Your task to perform on an android device: move a message to another label in the gmail app Image 0: 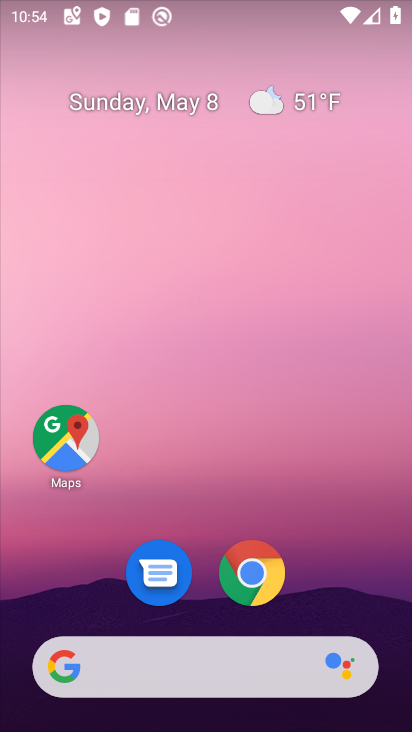
Step 0: drag from (197, 634) to (196, 85)
Your task to perform on an android device: move a message to another label in the gmail app Image 1: 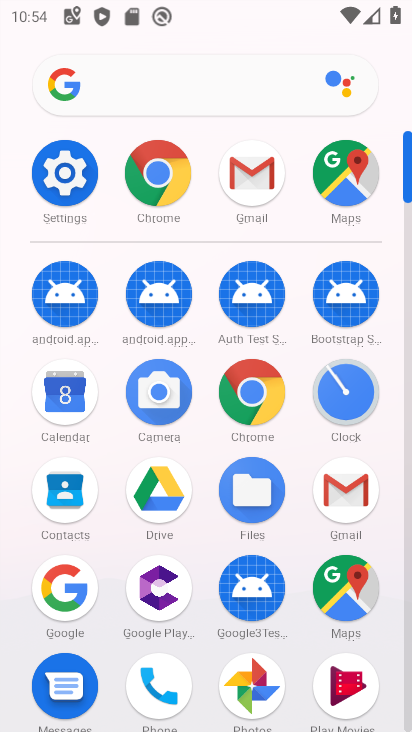
Step 1: click (250, 194)
Your task to perform on an android device: move a message to another label in the gmail app Image 2: 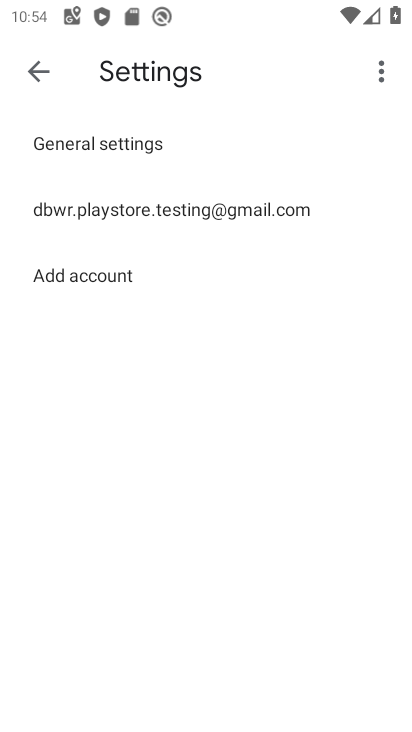
Step 2: click (29, 71)
Your task to perform on an android device: move a message to another label in the gmail app Image 3: 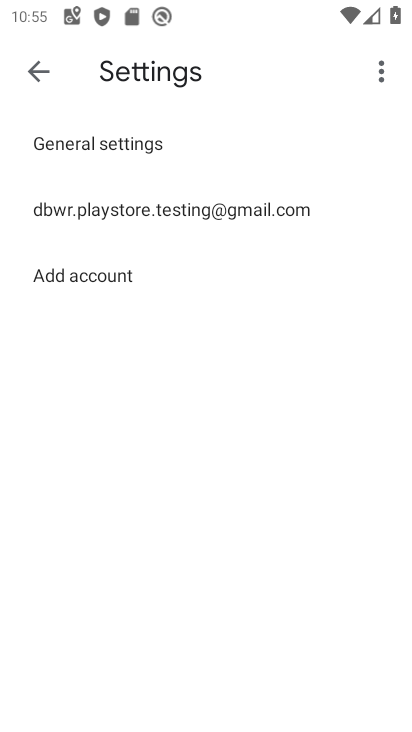
Step 3: click (32, 75)
Your task to perform on an android device: move a message to another label in the gmail app Image 4: 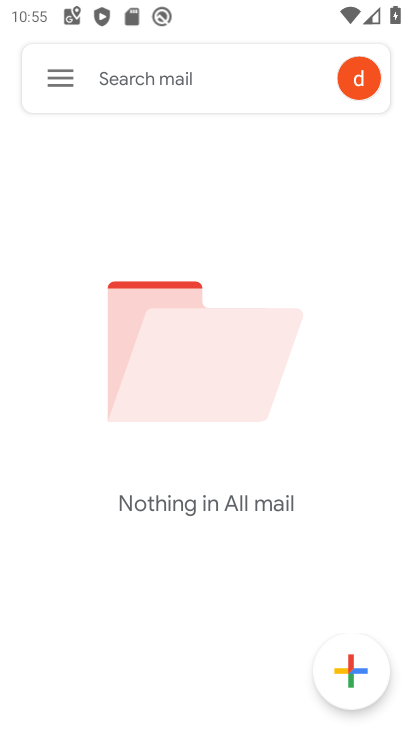
Step 4: click (57, 80)
Your task to perform on an android device: move a message to another label in the gmail app Image 5: 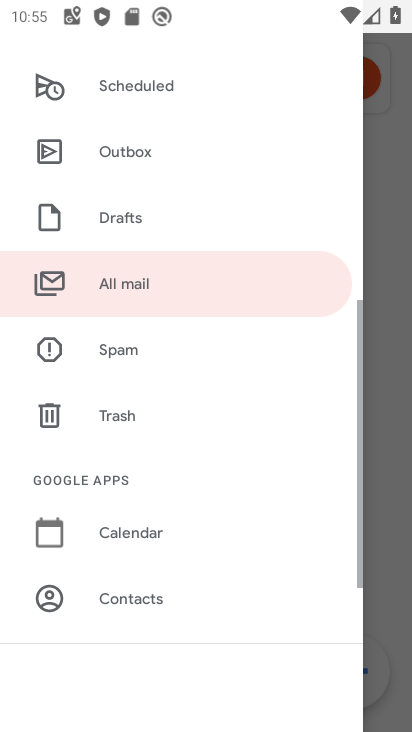
Step 5: drag from (124, 144) to (173, 453)
Your task to perform on an android device: move a message to another label in the gmail app Image 6: 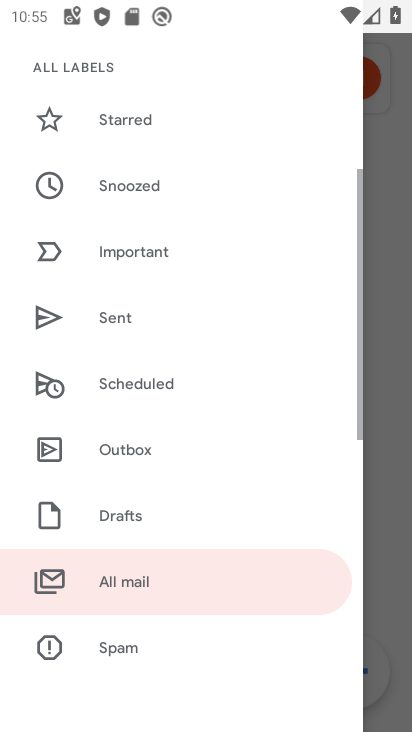
Step 6: drag from (125, 131) to (137, 479)
Your task to perform on an android device: move a message to another label in the gmail app Image 7: 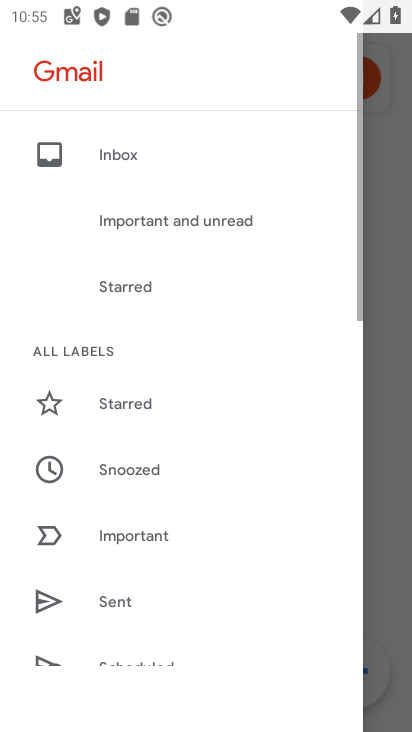
Step 7: click (91, 161)
Your task to perform on an android device: move a message to another label in the gmail app Image 8: 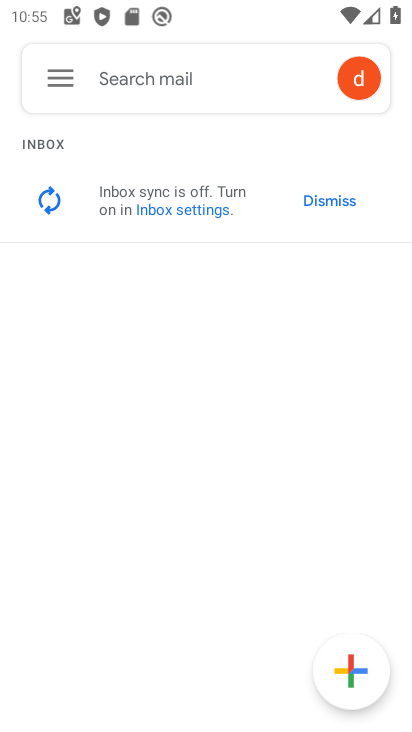
Step 8: task complete